Your task to perform on an android device: Go to notification settings Image 0: 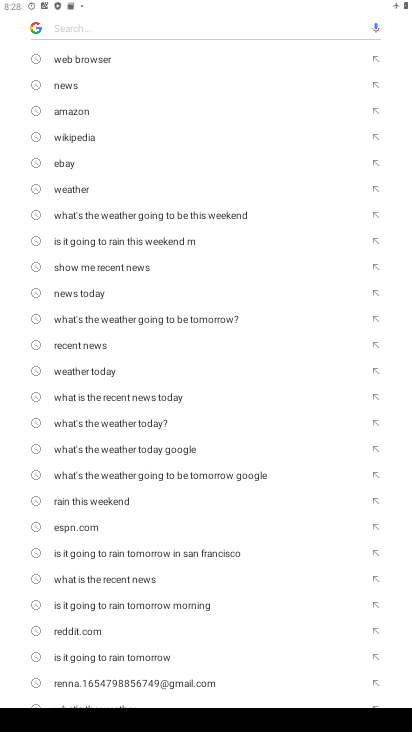
Step 0: press home button
Your task to perform on an android device: Go to notification settings Image 1: 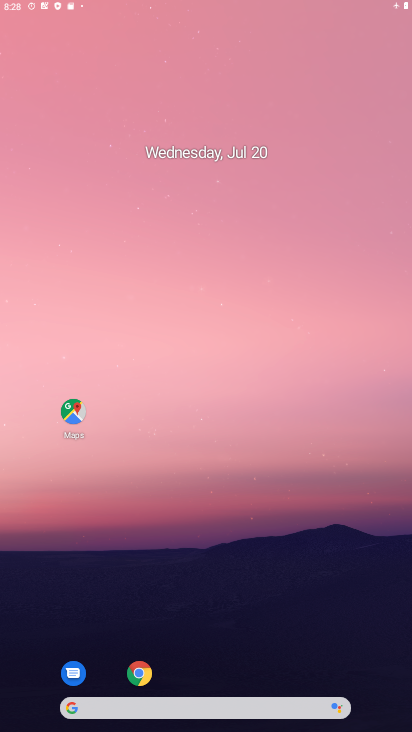
Step 1: drag from (301, 543) to (230, 78)
Your task to perform on an android device: Go to notification settings Image 2: 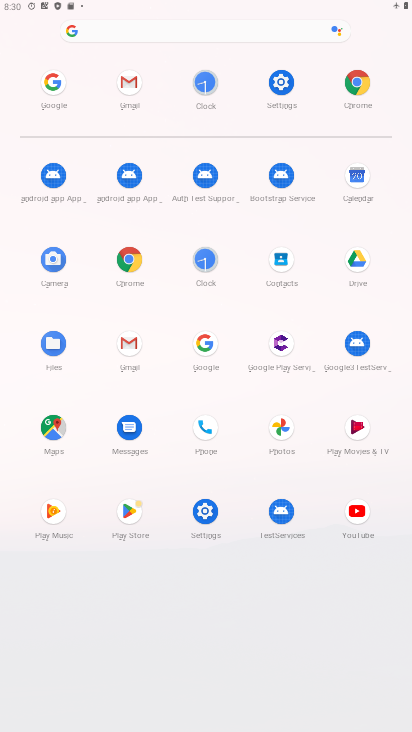
Step 2: click (202, 521)
Your task to perform on an android device: Go to notification settings Image 3: 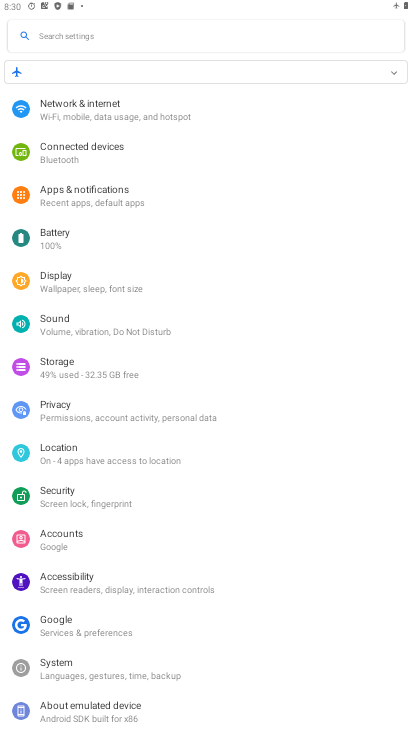
Step 3: click (74, 199)
Your task to perform on an android device: Go to notification settings Image 4: 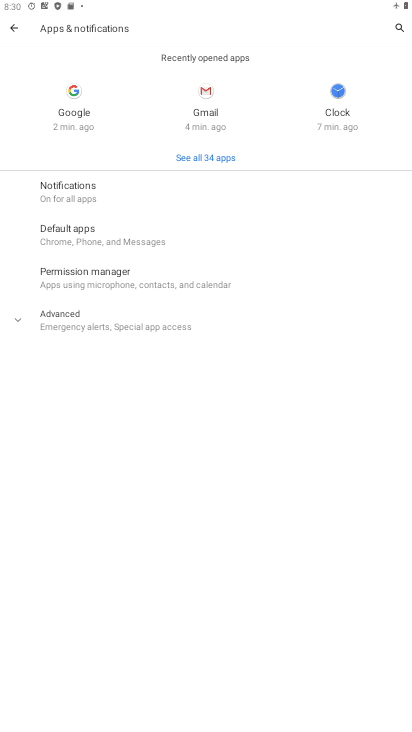
Step 4: click (74, 199)
Your task to perform on an android device: Go to notification settings Image 5: 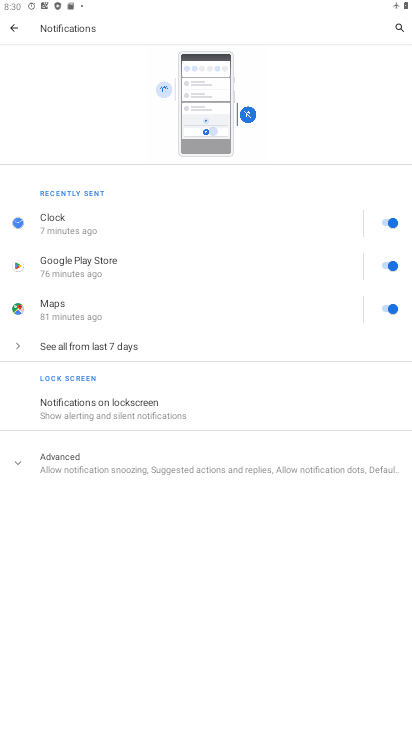
Step 5: task complete